Your task to perform on an android device: turn on the 24-hour format for clock Image 0: 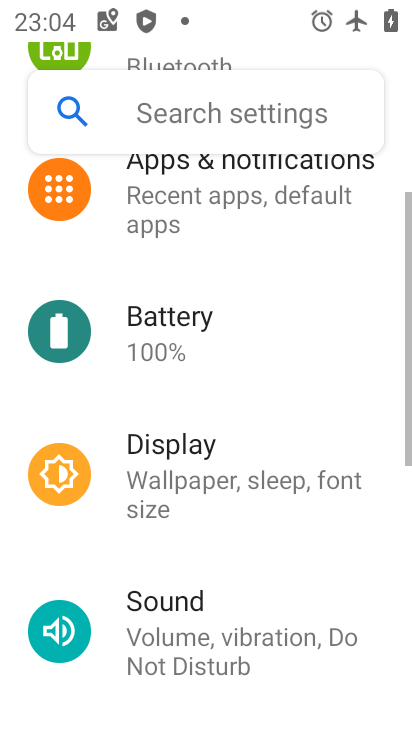
Step 0: click (134, 633)
Your task to perform on an android device: turn on the 24-hour format for clock Image 1: 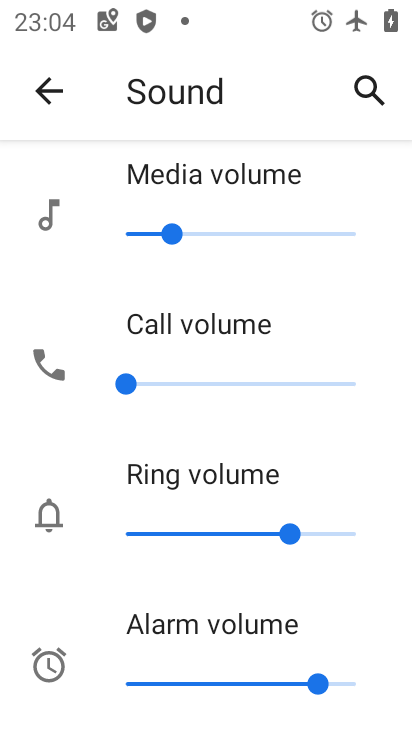
Step 1: press home button
Your task to perform on an android device: turn on the 24-hour format for clock Image 2: 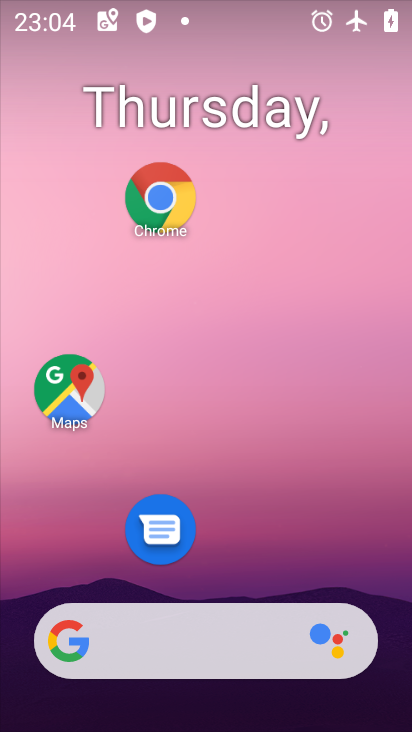
Step 2: drag from (265, 559) to (240, 145)
Your task to perform on an android device: turn on the 24-hour format for clock Image 3: 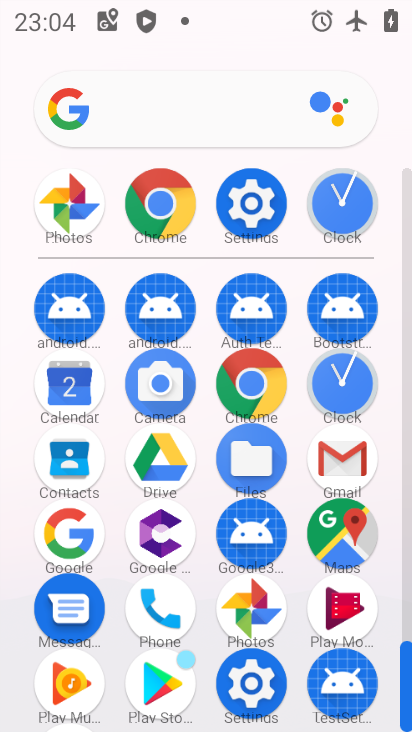
Step 3: click (348, 386)
Your task to perform on an android device: turn on the 24-hour format for clock Image 4: 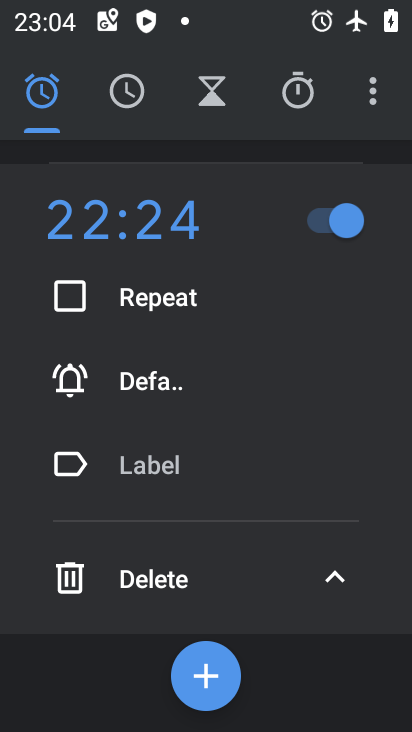
Step 4: click (375, 90)
Your task to perform on an android device: turn on the 24-hour format for clock Image 5: 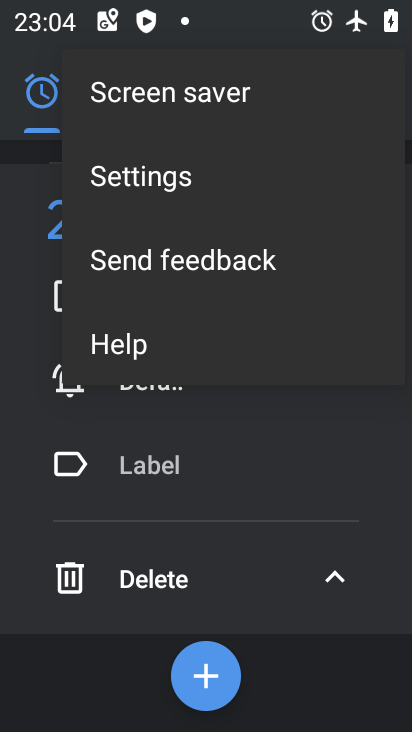
Step 5: click (151, 189)
Your task to perform on an android device: turn on the 24-hour format for clock Image 6: 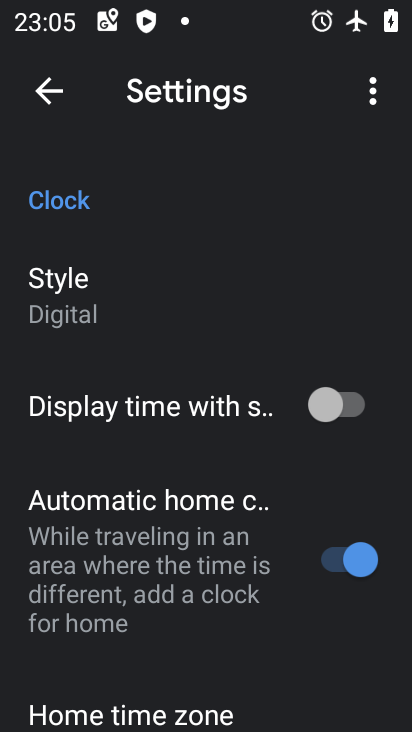
Step 6: drag from (304, 674) to (301, 365)
Your task to perform on an android device: turn on the 24-hour format for clock Image 7: 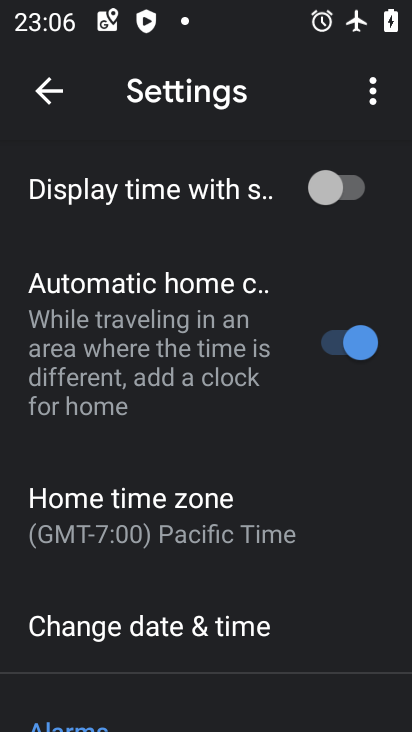
Step 7: drag from (258, 569) to (261, 64)
Your task to perform on an android device: turn on the 24-hour format for clock Image 8: 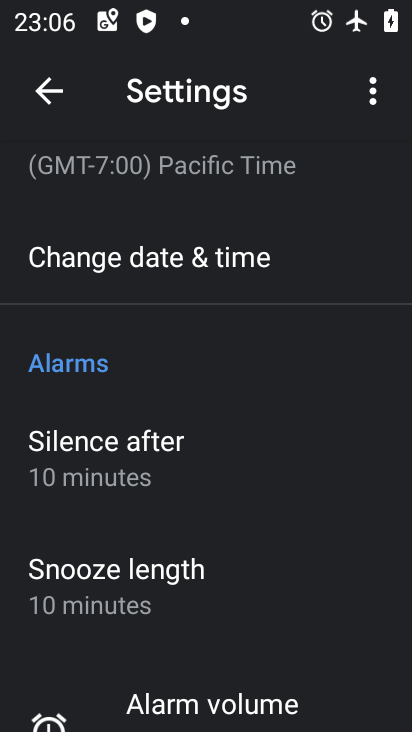
Step 8: click (213, 259)
Your task to perform on an android device: turn on the 24-hour format for clock Image 9: 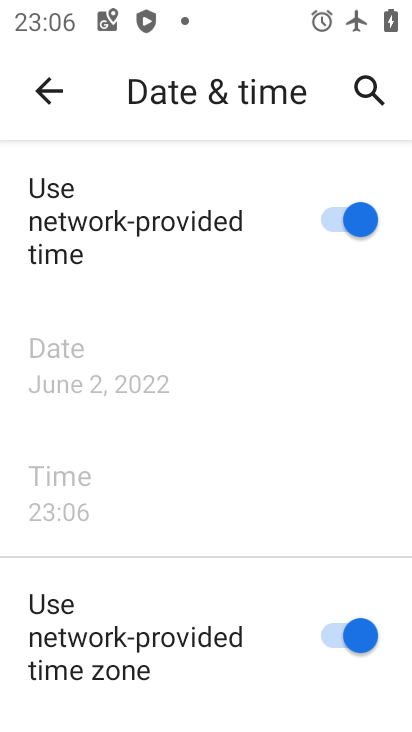
Step 9: task complete